Your task to perform on an android device: change the clock display to show seconds Image 0: 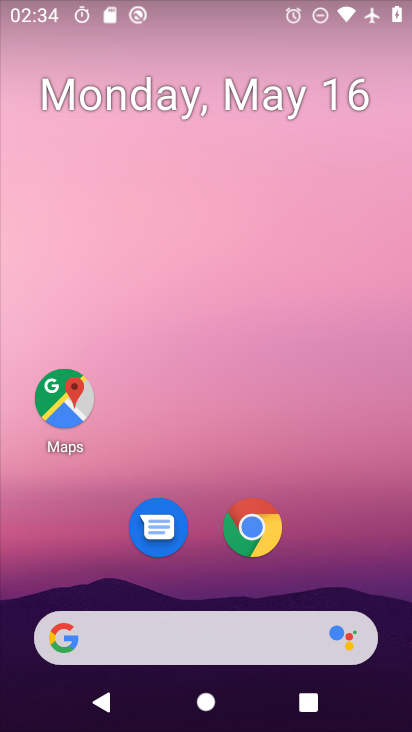
Step 0: drag from (208, 611) to (325, 123)
Your task to perform on an android device: change the clock display to show seconds Image 1: 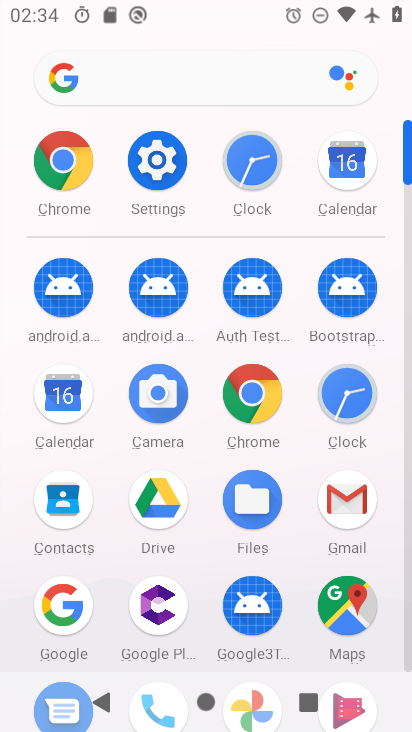
Step 1: click (353, 390)
Your task to perform on an android device: change the clock display to show seconds Image 2: 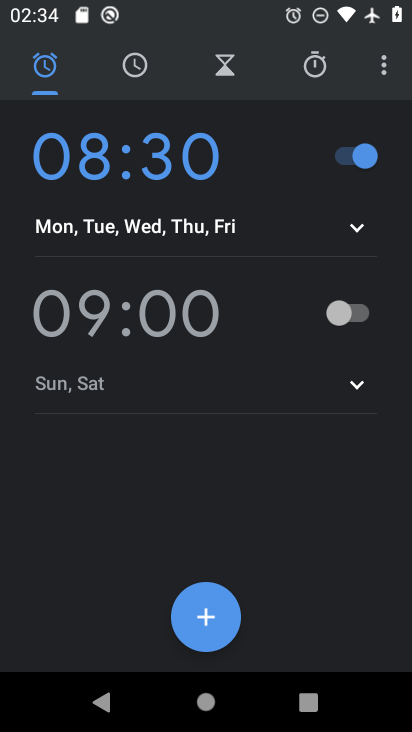
Step 2: click (384, 69)
Your task to perform on an android device: change the clock display to show seconds Image 3: 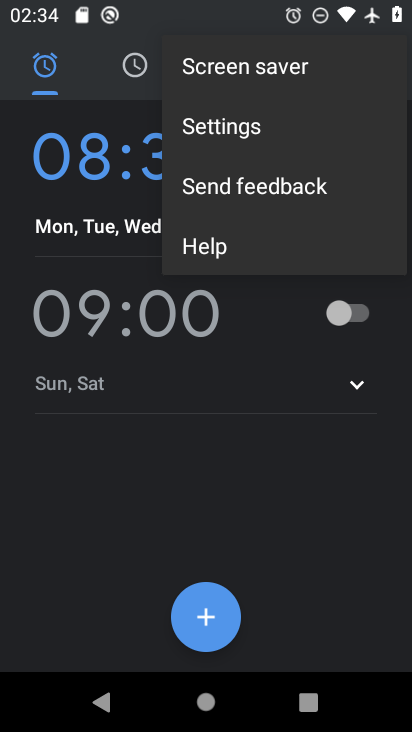
Step 3: click (231, 132)
Your task to perform on an android device: change the clock display to show seconds Image 4: 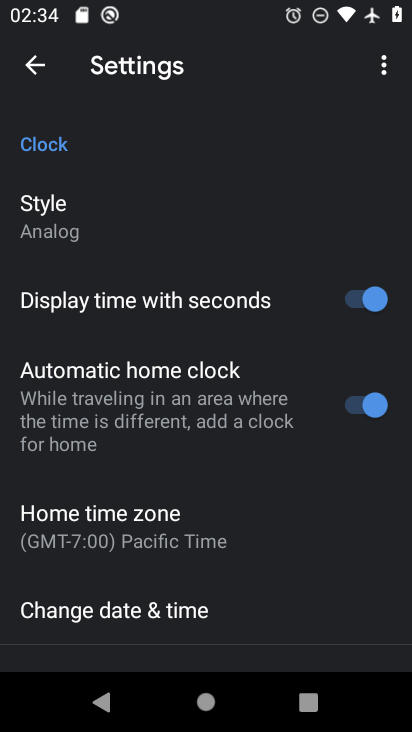
Step 4: task complete